Your task to perform on an android device: open chrome privacy settings Image 0: 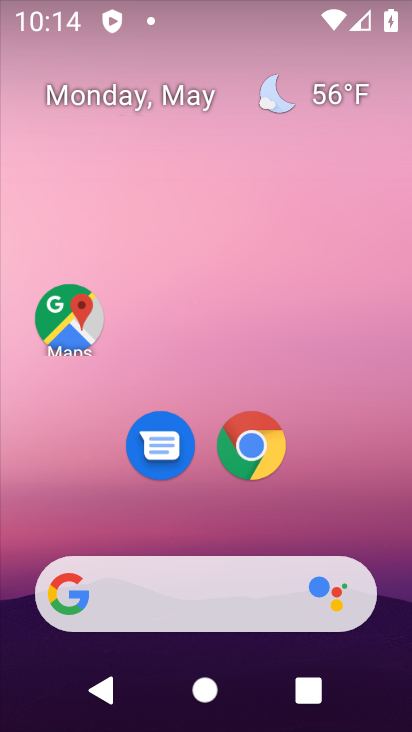
Step 0: click (290, 151)
Your task to perform on an android device: open chrome privacy settings Image 1: 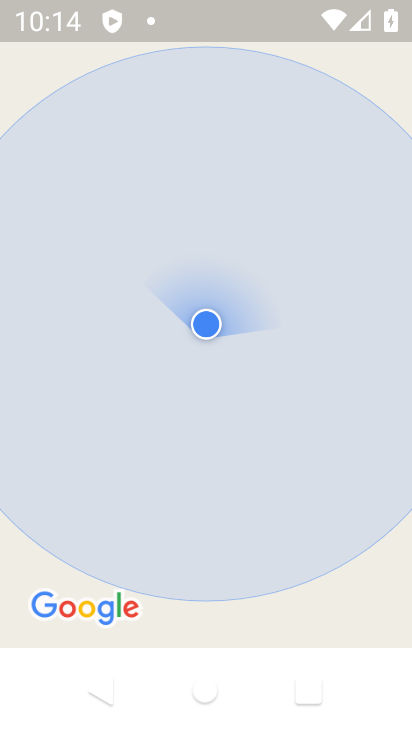
Step 1: press home button
Your task to perform on an android device: open chrome privacy settings Image 2: 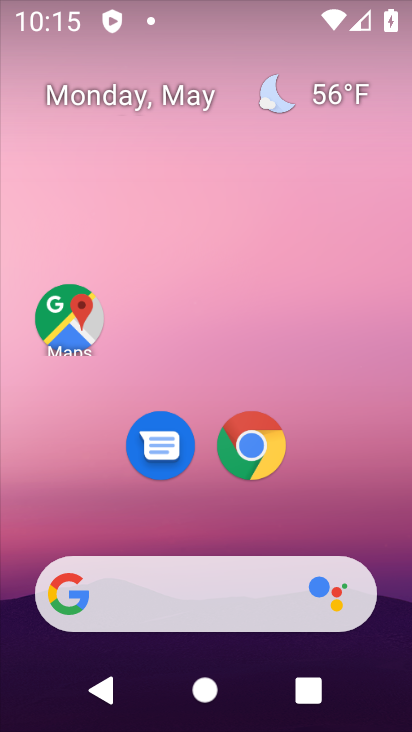
Step 2: click (260, 446)
Your task to perform on an android device: open chrome privacy settings Image 3: 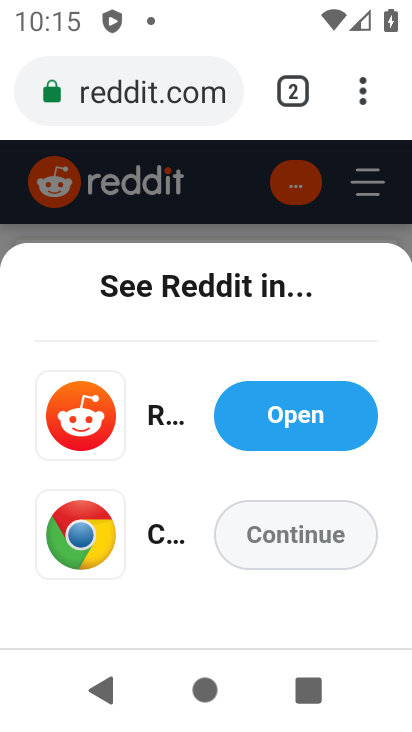
Step 3: click (364, 91)
Your task to perform on an android device: open chrome privacy settings Image 4: 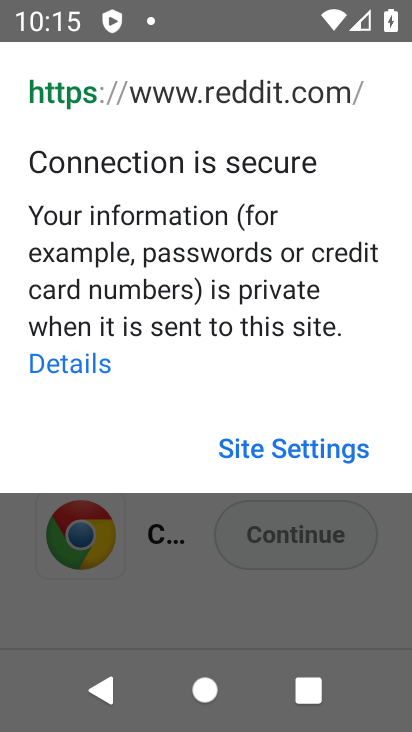
Step 4: click (152, 622)
Your task to perform on an android device: open chrome privacy settings Image 5: 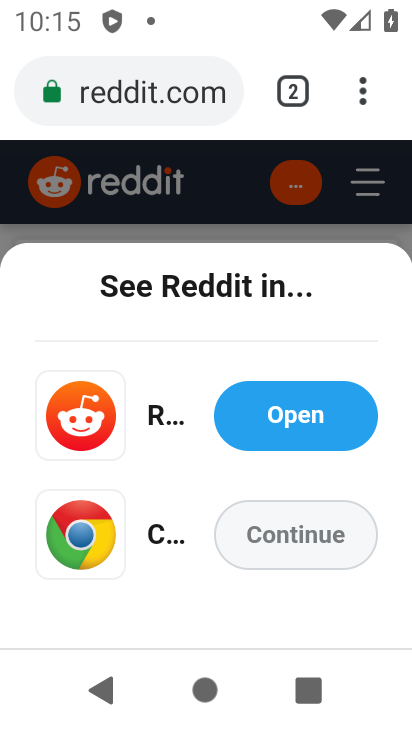
Step 5: click (297, 88)
Your task to perform on an android device: open chrome privacy settings Image 6: 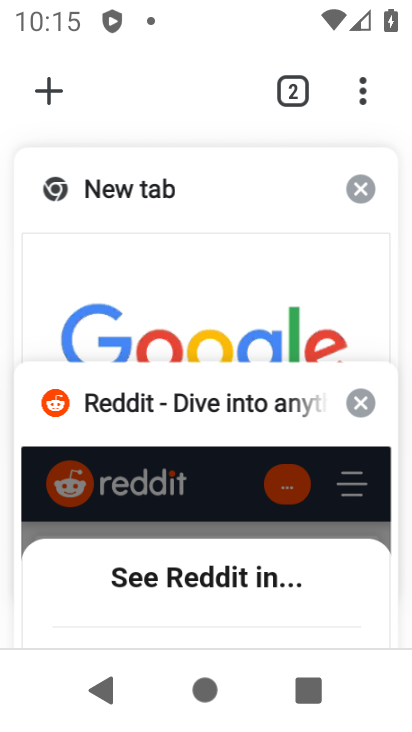
Step 6: click (360, 197)
Your task to perform on an android device: open chrome privacy settings Image 7: 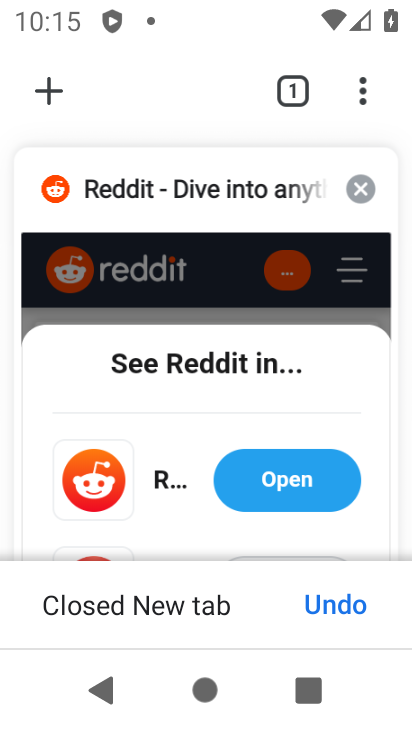
Step 7: click (364, 180)
Your task to perform on an android device: open chrome privacy settings Image 8: 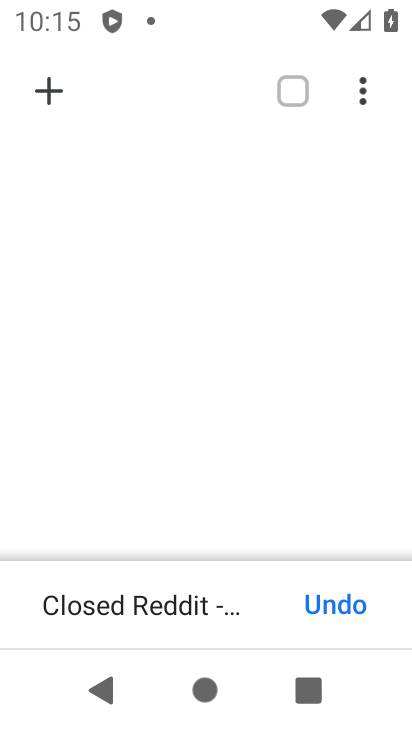
Step 8: click (46, 88)
Your task to perform on an android device: open chrome privacy settings Image 9: 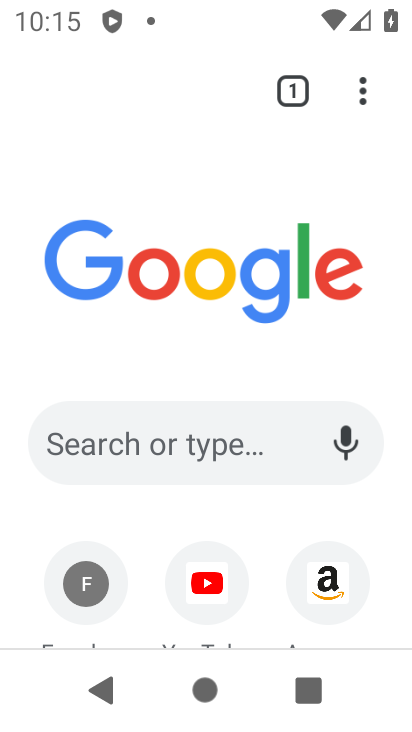
Step 9: click (365, 89)
Your task to perform on an android device: open chrome privacy settings Image 10: 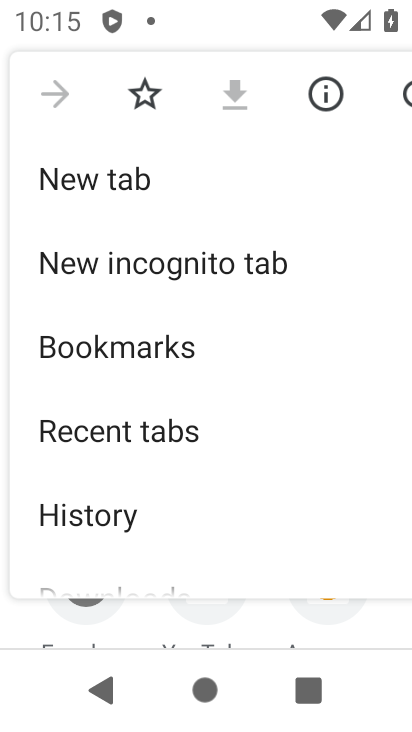
Step 10: drag from (153, 544) to (147, 261)
Your task to perform on an android device: open chrome privacy settings Image 11: 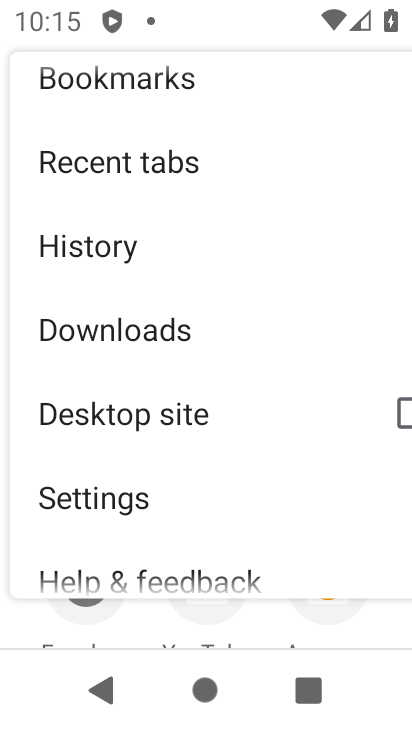
Step 11: click (110, 491)
Your task to perform on an android device: open chrome privacy settings Image 12: 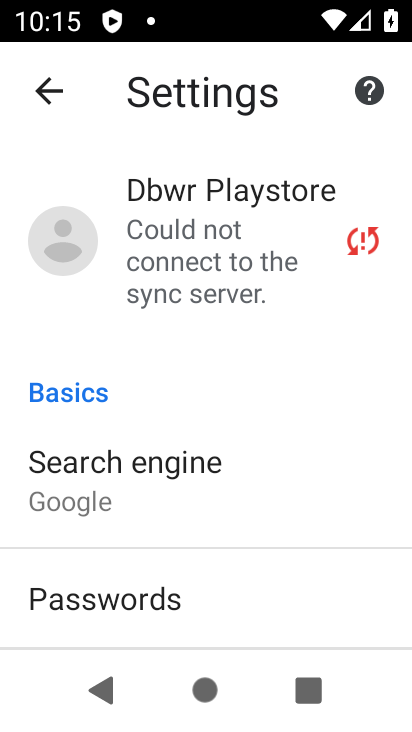
Step 12: drag from (144, 615) to (166, 221)
Your task to perform on an android device: open chrome privacy settings Image 13: 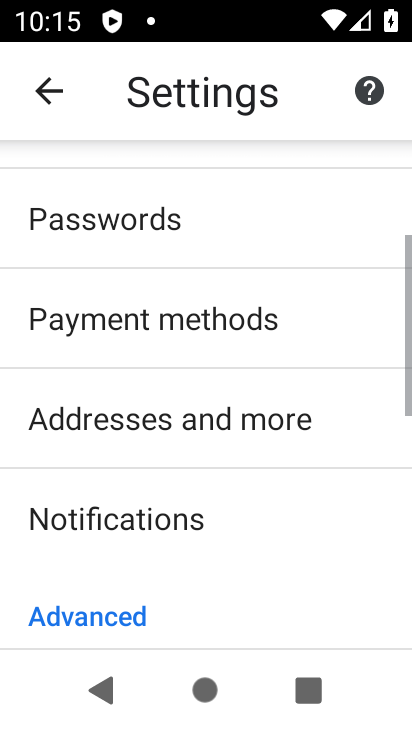
Step 13: drag from (180, 639) to (209, 278)
Your task to perform on an android device: open chrome privacy settings Image 14: 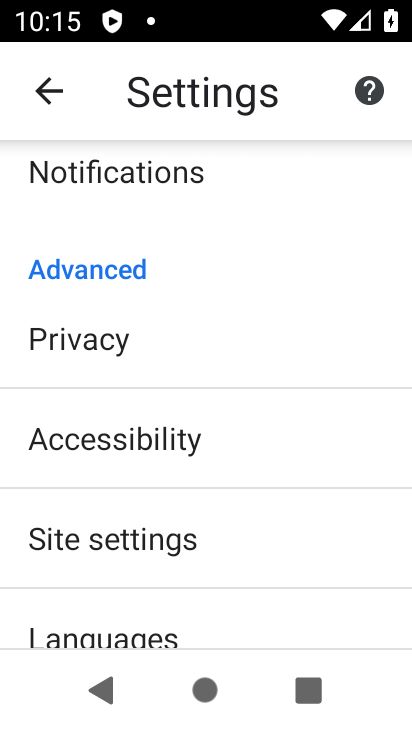
Step 14: click (130, 328)
Your task to perform on an android device: open chrome privacy settings Image 15: 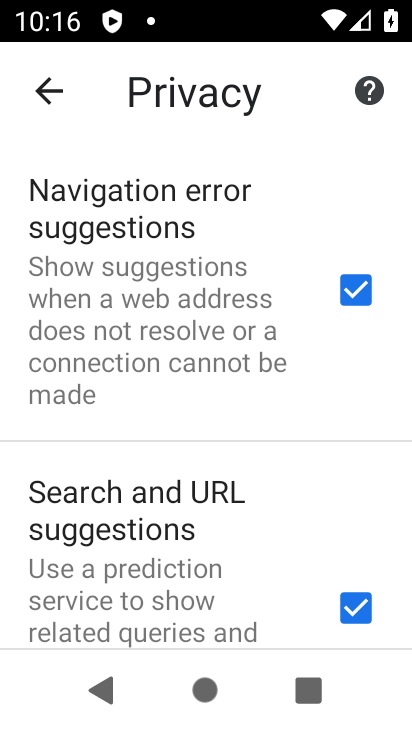
Step 15: task complete